Your task to perform on an android device: empty trash in the gmail app Image 0: 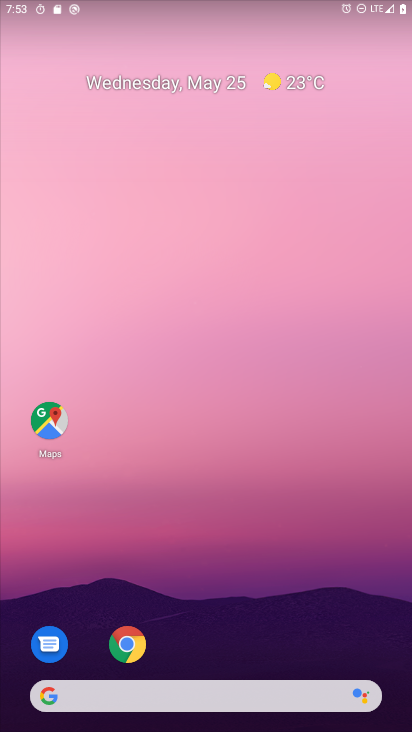
Step 0: drag from (370, 659) to (244, 90)
Your task to perform on an android device: empty trash in the gmail app Image 1: 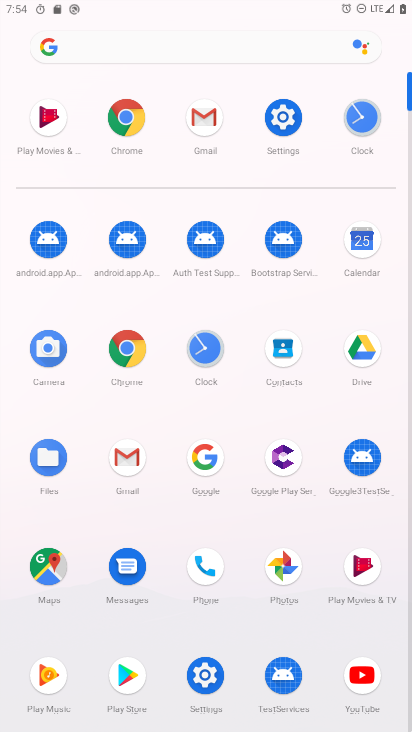
Step 1: click (111, 470)
Your task to perform on an android device: empty trash in the gmail app Image 2: 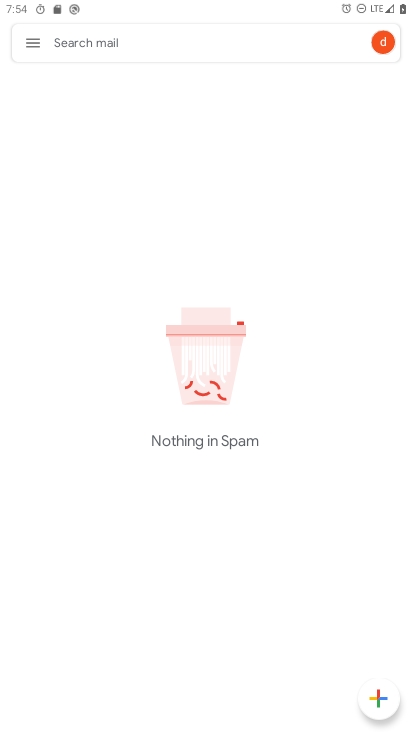
Step 2: click (34, 37)
Your task to perform on an android device: empty trash in the gmail app Image 3: 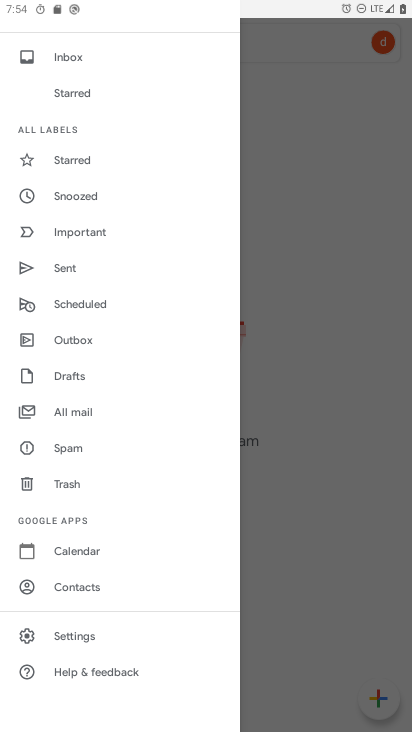
Step 3: click (70, 495)
Your task to perform on an android device: empty trash in the gmail app Image 4: 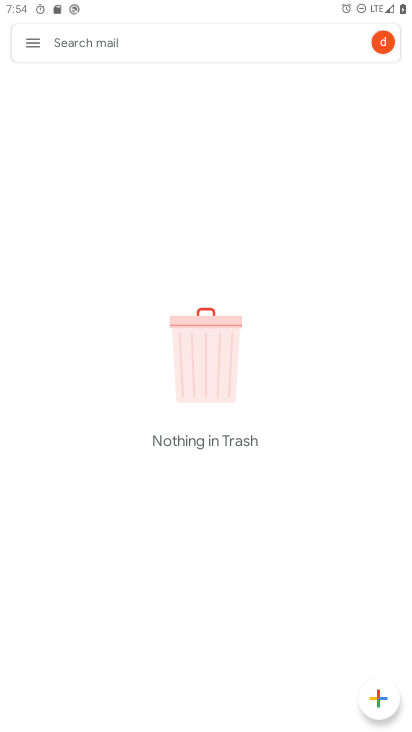
Step 4: task complete